Your task to perform on an android device: open a new tab in the chrome app Image 0: 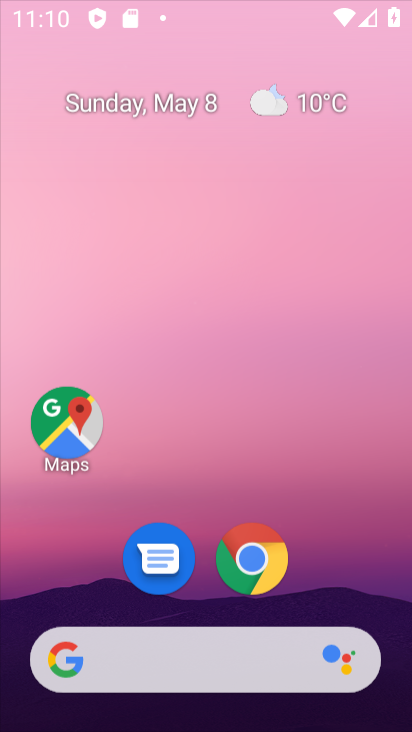
Step 0: click (259, 524)
Your task to perform on an android device: open a new tab in the chrome app Image 1: 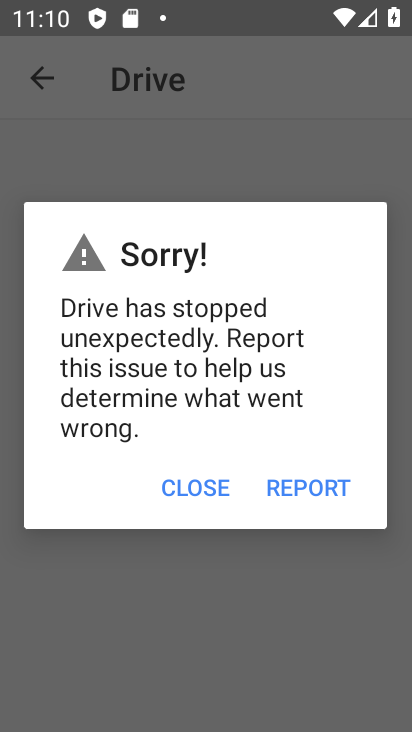
Step 1: click (223, 503)
Your task to perform on an android device: open a new tab in the chrome app Image 2: 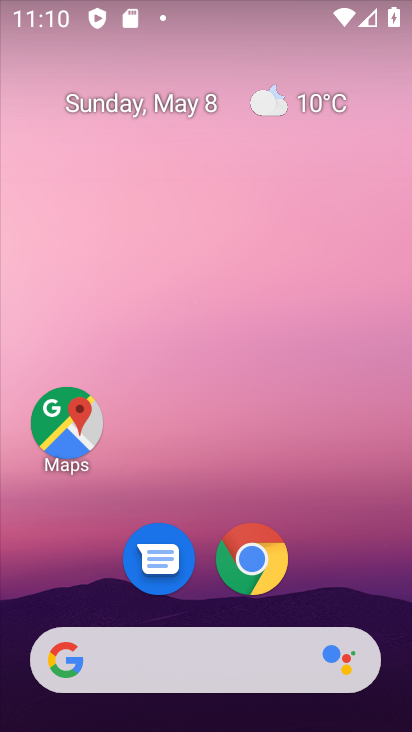
Step 2: click (249, 554)
Your task to perform on an android device: open a new tab in the chrome app Image 3: 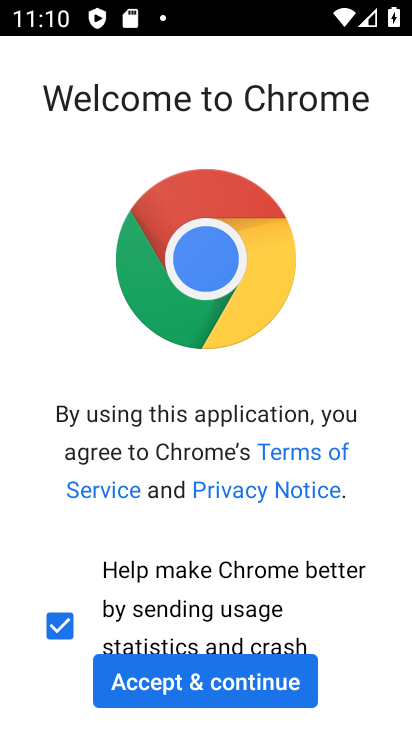
Step 3: click (225, 676)
Your task to perform on an android device: open a new tab in the chrome app Image 4: 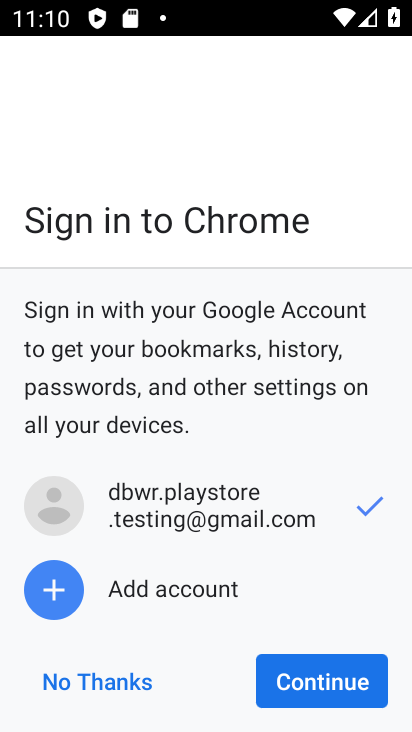
Step 4: click (305, 678)
Your task to perform on an android device: open a new tab in the chrome app Image 5: 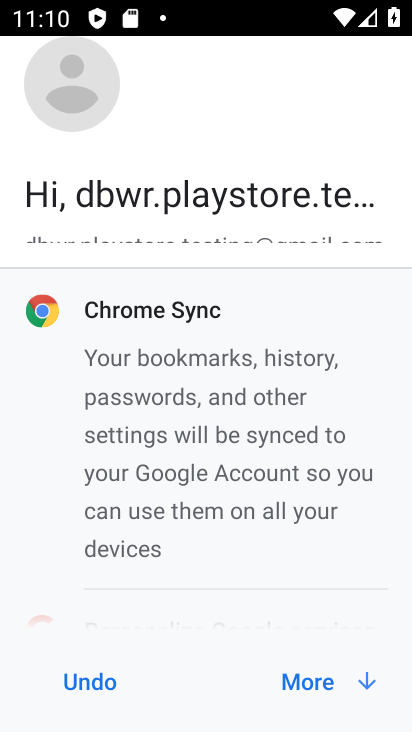
Step 5: click (305, 678)
Your task to perform on an android device: open a new tab in the chrome app Image 6: 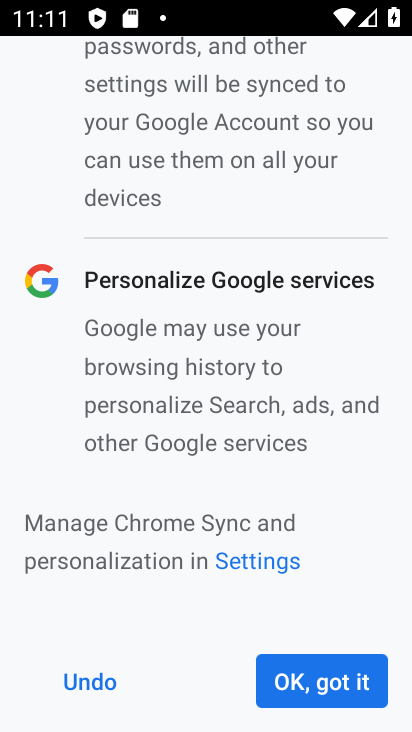
Step 6: click (305, 678)
Your task to perform on an android device: open a new tab in the chrome app Image 7: 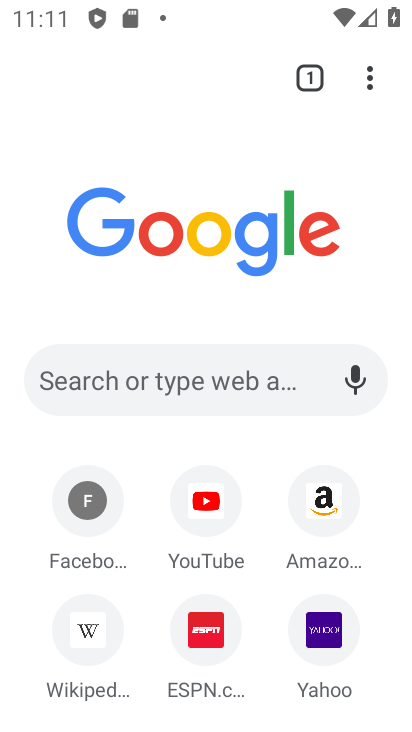
Step 7: click (370, 78)
Your task to perform on an android device: open a new tab in the chrome app Image 8: 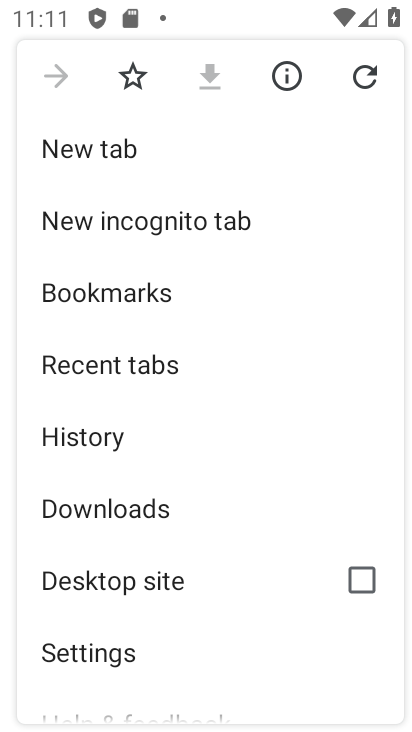
Step 8: click (119, 157)
Your task to perform on an android device: open a new tab in the chrome app Image 9: 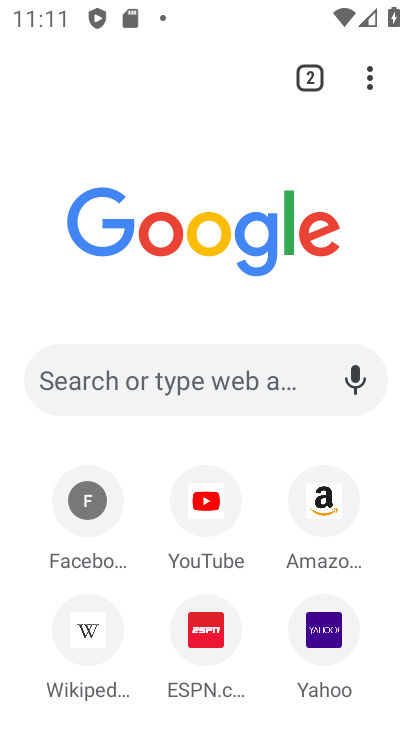
Step 9: task complete